Your task to perform on an android device: What's the weather today? Image 0: 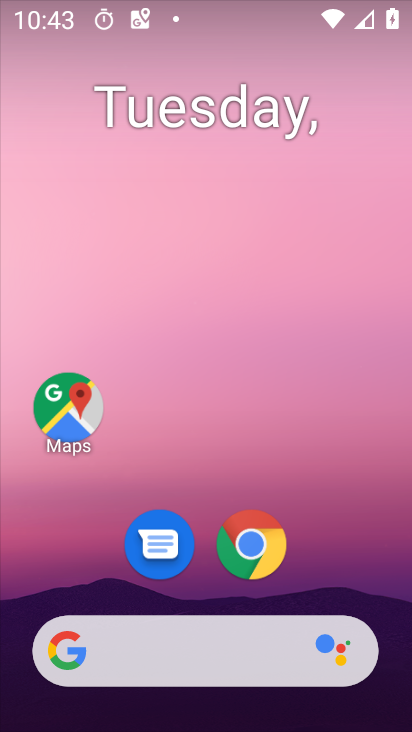
Step 0: click (263, 541)
Your task to perform on an android device: What's the weather today? Image 1: 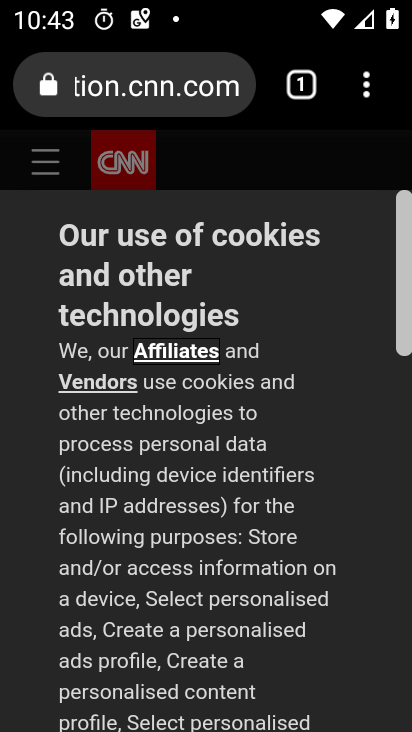
Step 1: drag from (222, 725) to (341, 713)
Your task to perform on an android device: What's the weather today? Image 2: 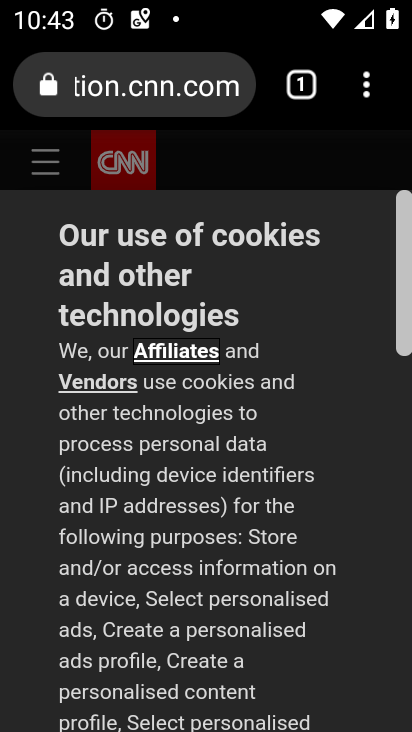
Step 2: click (192, 87)
Your task to perform on an android device: What's the weather today? Image 3: 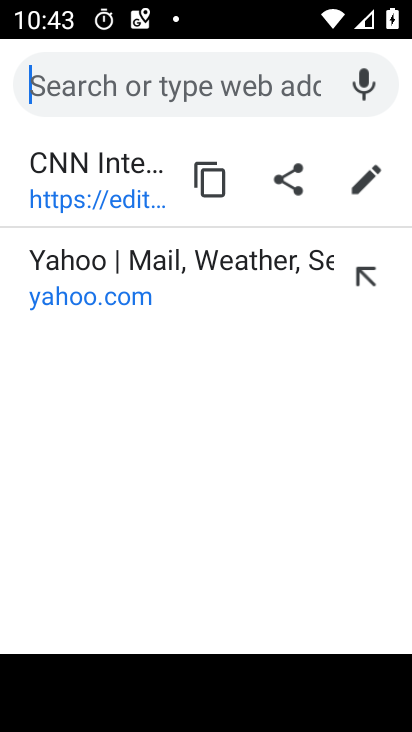
Step 3: type "What's the weather today?"
Your task to perform on an android device: What's the weather today? Image 4: 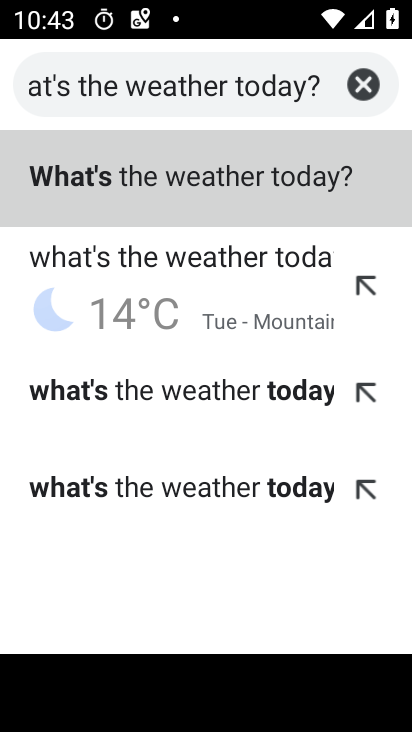
Step 4: click (273, 199)
Your task to perform on an android device: What's the weather today? Image 5: 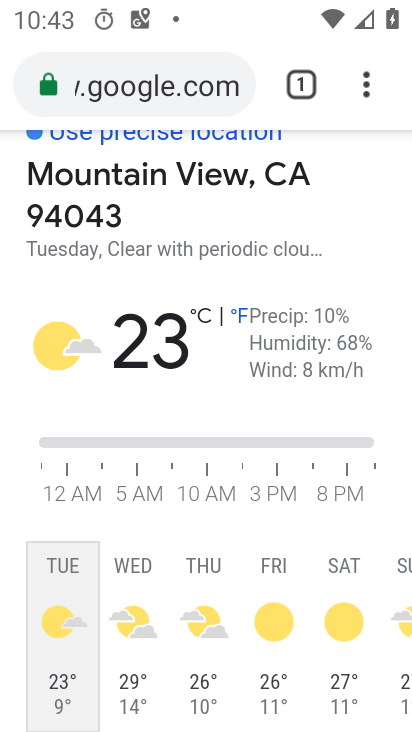
Step 5: click (129, 617)
Your task to perform on an android device: What's the weather today? Image 6: 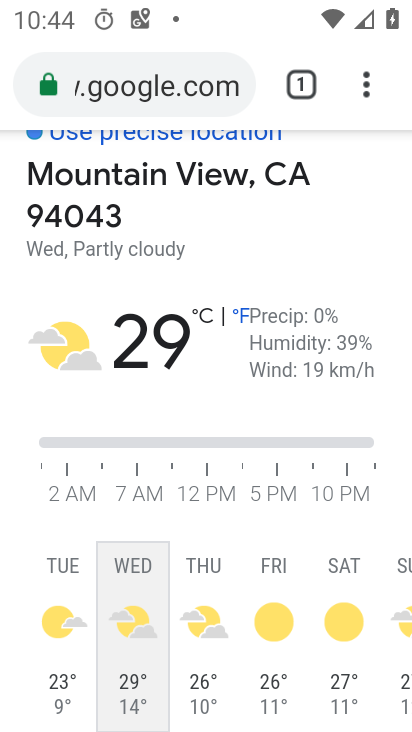
Step 6: task complete